Your task to perform on an android device: Search for Mexican restaurants on Maps Image 0: 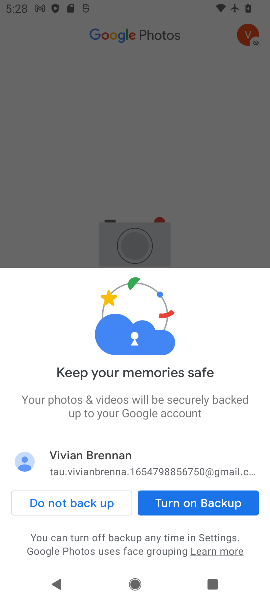
Step 0: press home button
Your task to perform on an android device: Search for Mexican restaurants on Maps Image 1: 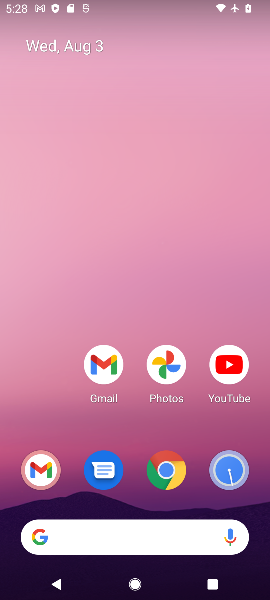
Step 1: drag from (136, 425) to (147, 117)
Your task to perform on an android device: Search for Mexican restaurants on Maps Image 2: 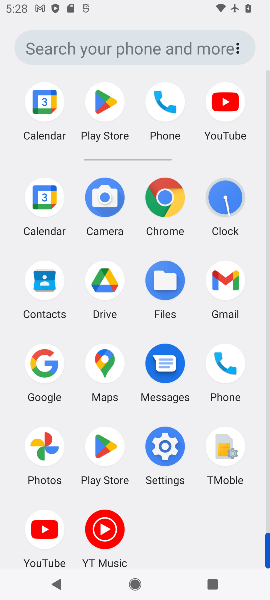
Step 2: click (106, 366)
Your task to perform on an android device: Search for Mexican restaurants on Maps Image 3: 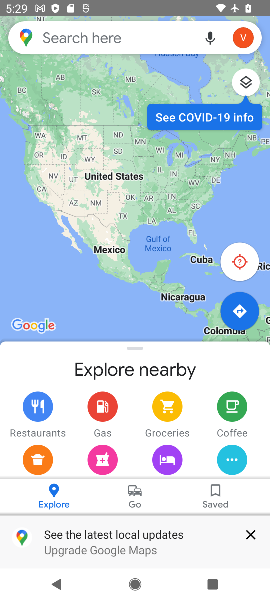
Step 3: click (116, 35)
Your task to perform on an android device: Search for Mexican restaurants on Maps Image 4: 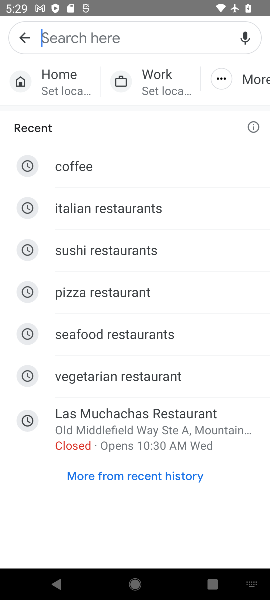
Step 4: type "Mexican restaurants"
Your task to perform on an android device: Search for Mexican restaurants on Maps Image 5: 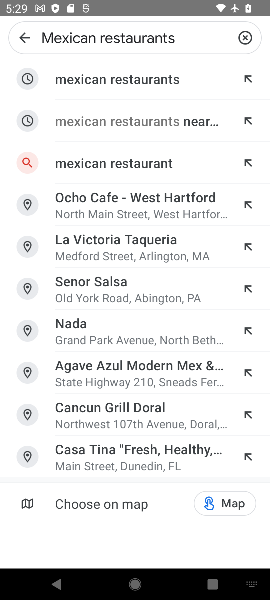
Step 5: click (187, 84)
Your task to perform on an android device: Search for Mexican restaurants on Maps Image 6: 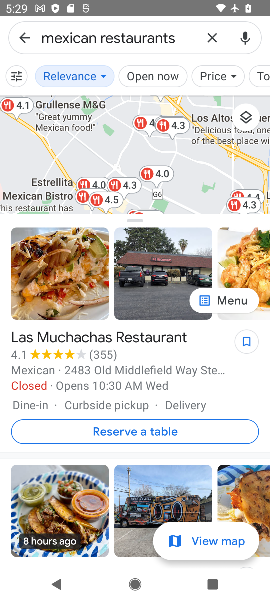
Step 6: task complete